Your task to perform on an android device: Is it going to rain this weekend? Image 0: 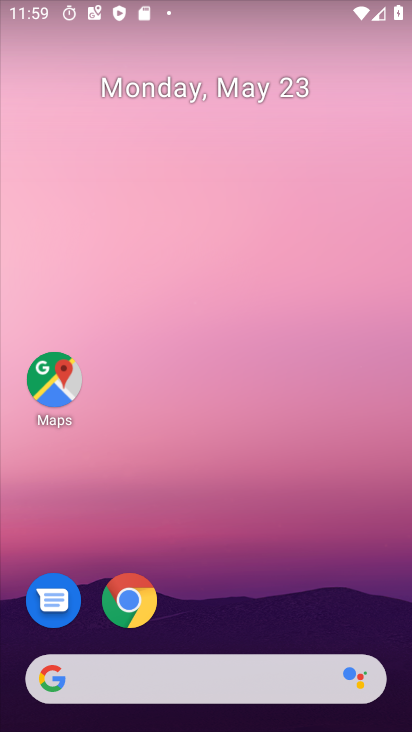
Step 0: click (123, 606)
Your task to perform on an android device: Is it going to rain this weekend? Image 1: 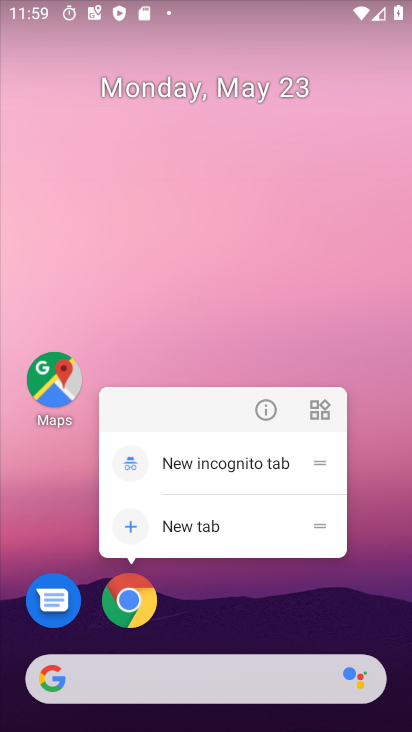
Step 1: click (123, 604)
Your task to perform on an android device: Is it going to rain this weekend? Image 2: 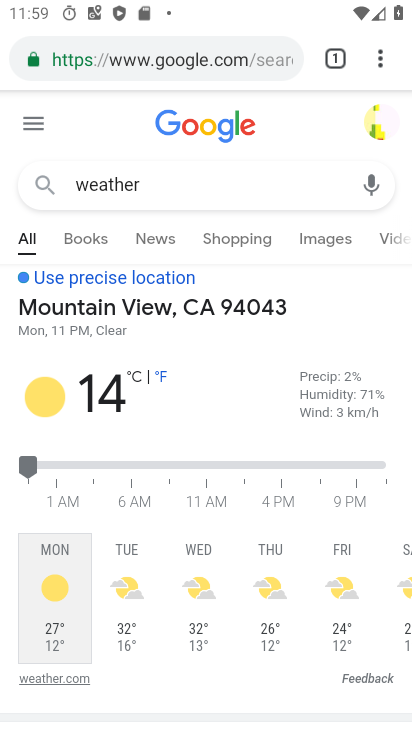
Step 2: task complete